Your task to perform on an android device: see creations saved in the google photos Image 0: 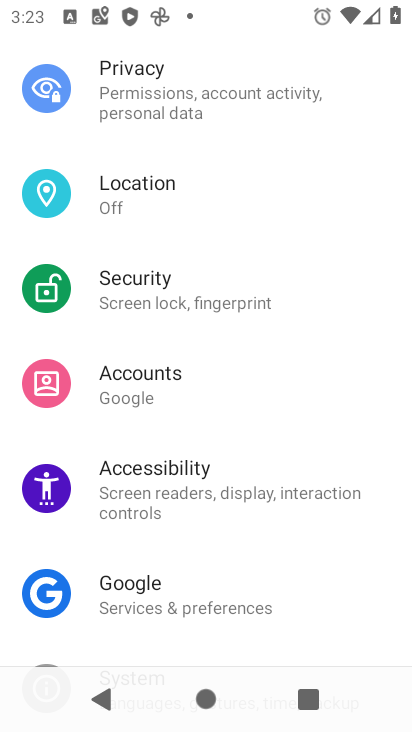
Step 0: press home button
Your task to perform on an android device: see creations saved in the google photos Image 1: 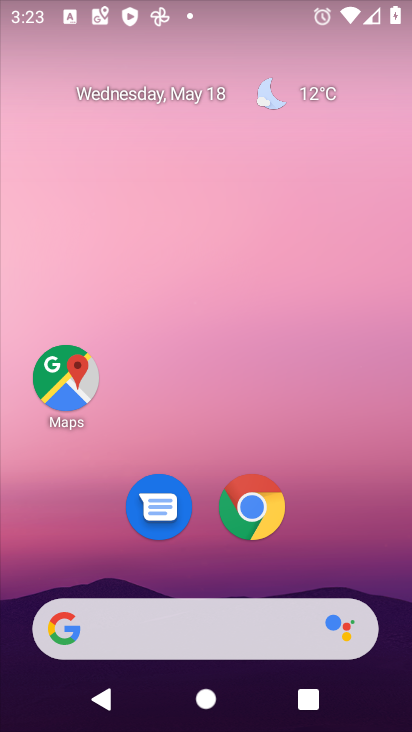
Step 1: drag from (393, 612) to (317, 147)
Your task to perform on an android device: see creations saved in the google photos Image 2: 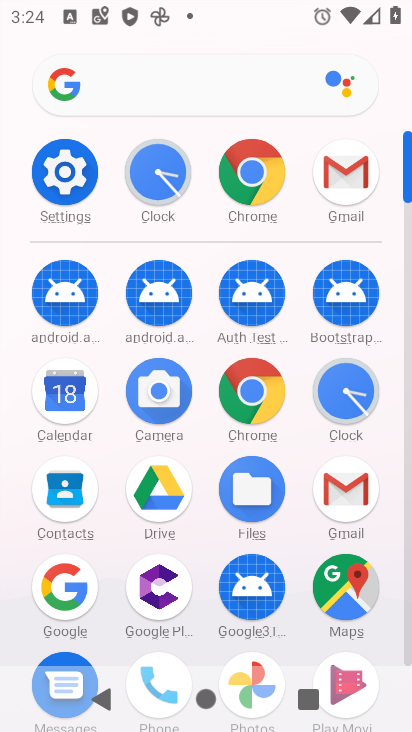
Step 2: click (409, 639)
Your task to perform on an android device: see creations saved in the google photos Image 3: 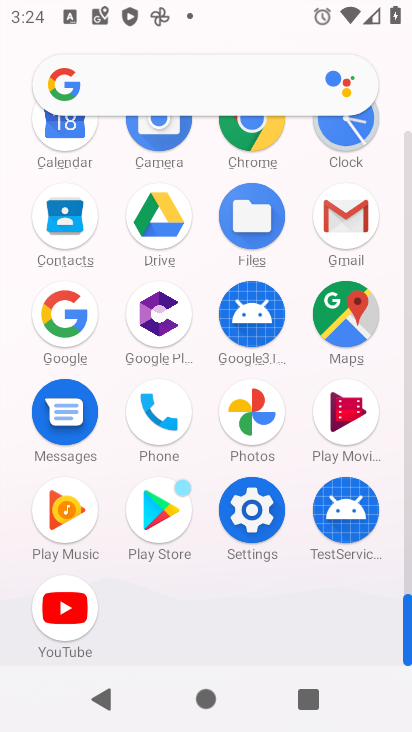
Step 3: click (251, 412)
Your task to perform on an android device: see creations saved in the google photos Image 4: 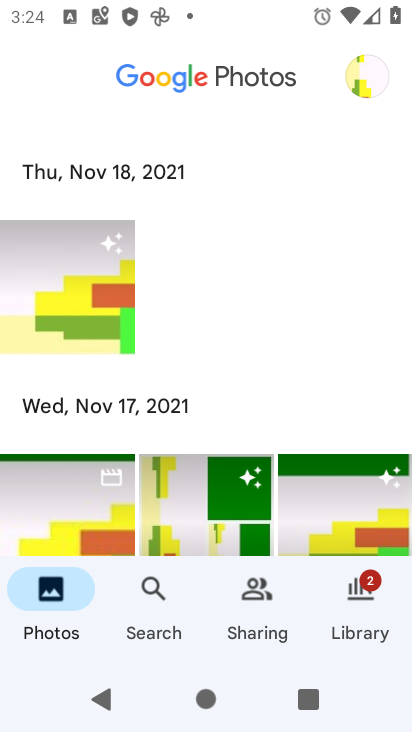
Step 4: task complete